Your task to perform on an android device: Is it going to rain today? Image 0: 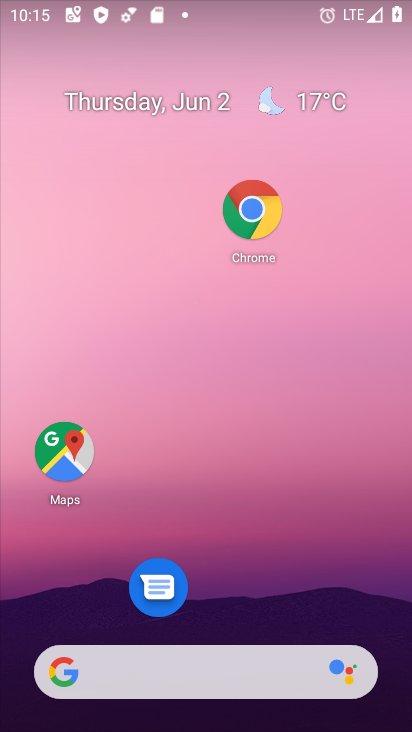
Step 0: click (318, 94)
Your task to perform on an android device: Is it going to rain today? Image 1: 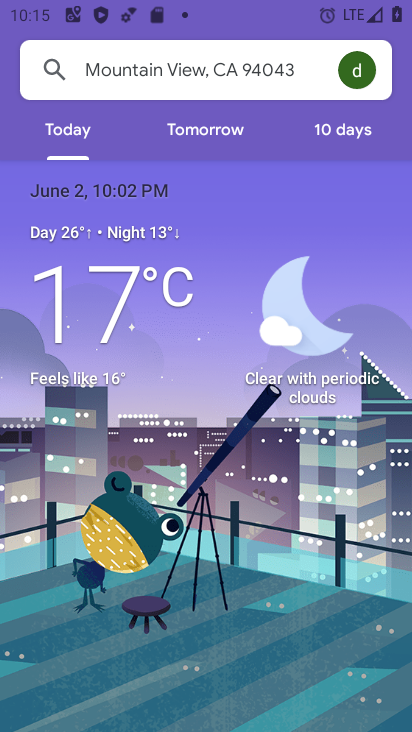
Step 1: task complete